Your task to perform on an android device: What's the US dollar exchange rate against the Euro? Image 0: 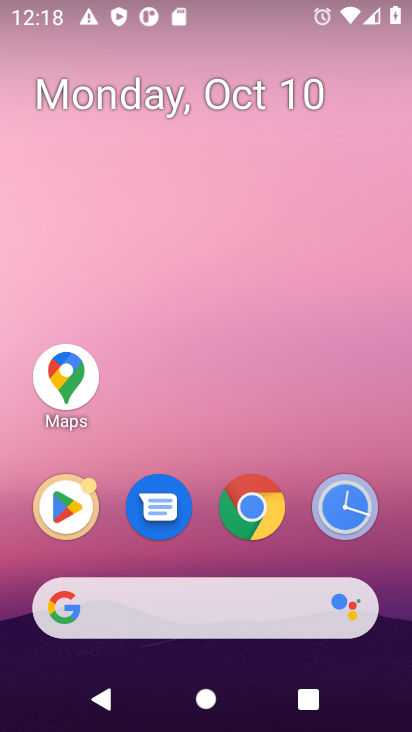
Step 0: press home button
Your task to perform on an android device: What's the US dollar exchange rate against the Euro? Image 1: 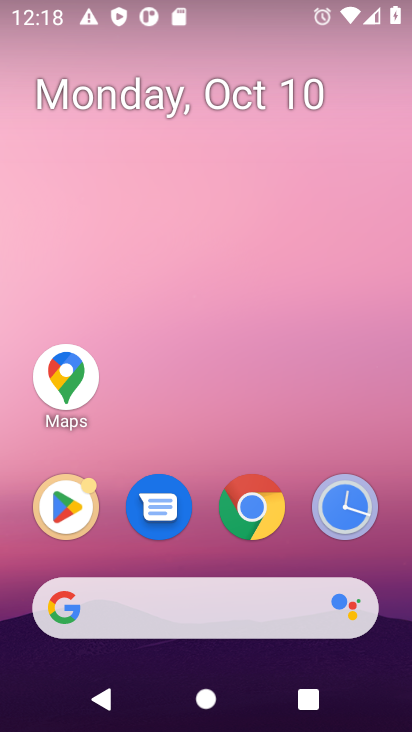
Step 1: click (237, 619)
Your task to perform on an android device: What's the US dollar exchange rate against the Euro? Image 2: 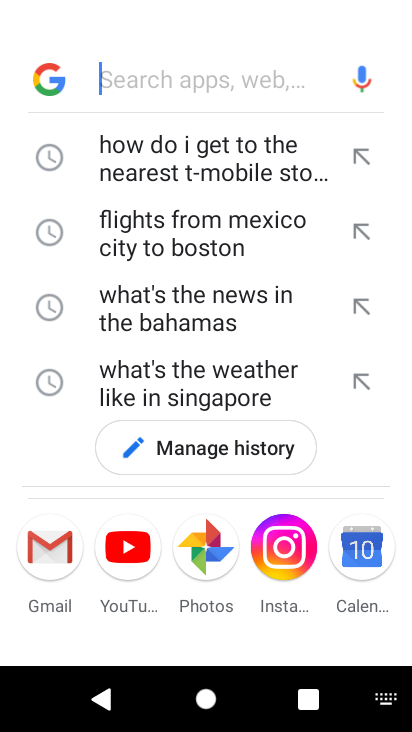
Step 2: type "What's the US dollar exchange rate against the Euro"
Your task to perform on an android device: What's the US dollar exchange rate against the Euro? Image 3: 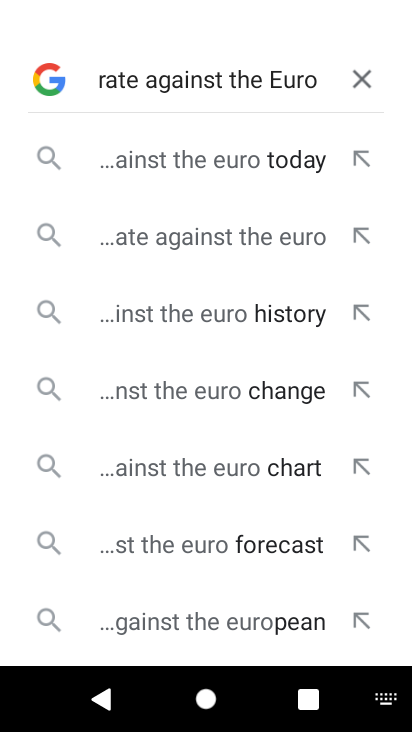
Step 3: press enter
Your task to perform on an android device: What's the US dollar exchange rate against the Euro? Image 4: 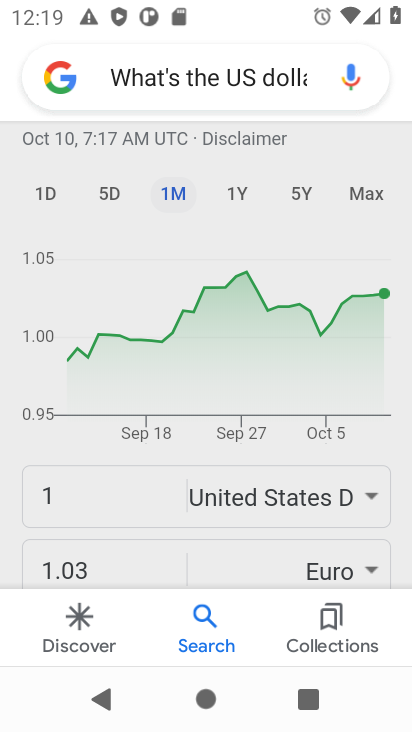
Step 4: task complete